Your task to perform on an android device: toggle priority inbox in the gmail app Image 0: 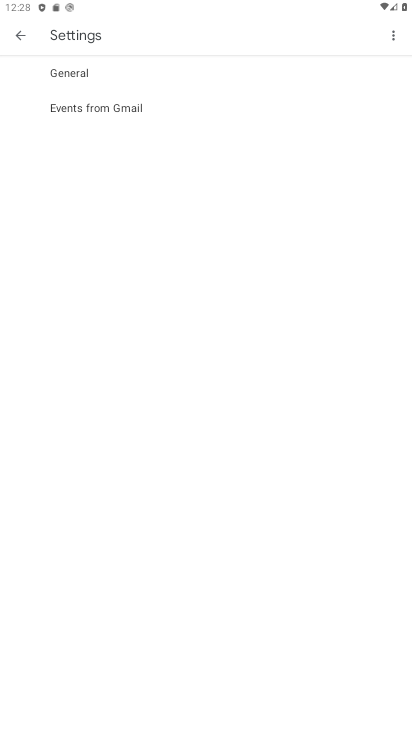
Step 0: press home button
Your task to perform on an android device: toggle priority inbox in the gmail app Image 1: 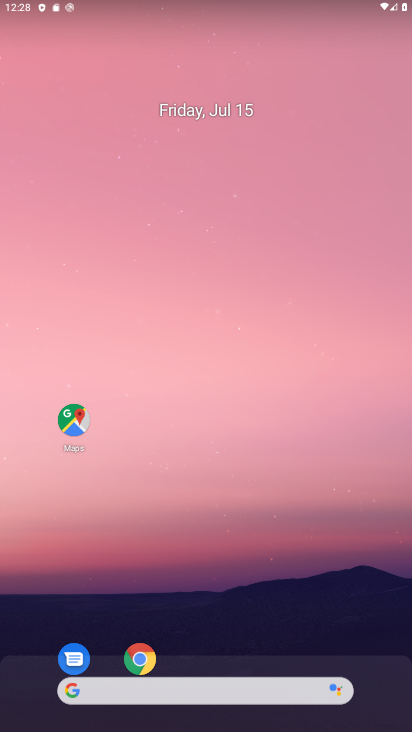
Step 1: drag from (295, 645) to (176, 134)
Your task to perform on an android device: toggle priority inbox in the gmail app Image 2: 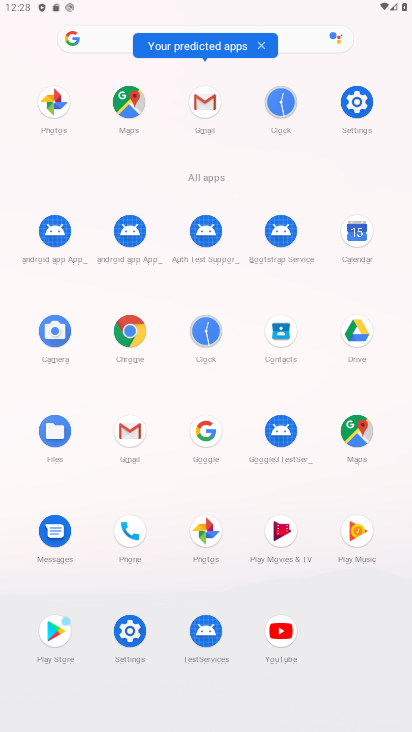
Step 2: click (209, 110)
Your task to perform on an android device: toggle priority inbox in the gmail app Image 3: 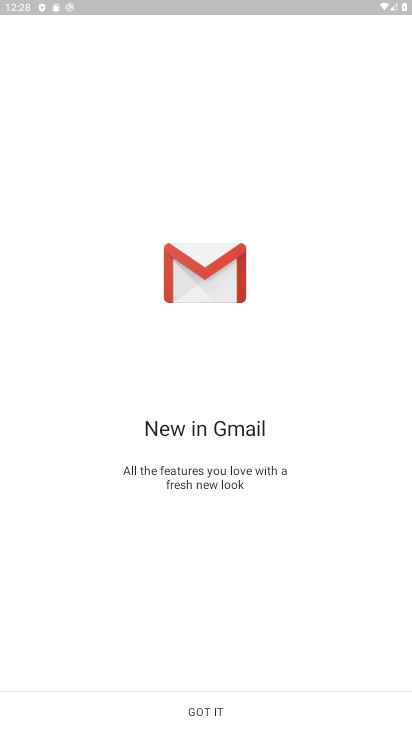
Step 3: click (213, 716)
Your task to perform on an android device: toggle priority inbox in the gmail app Image 4: 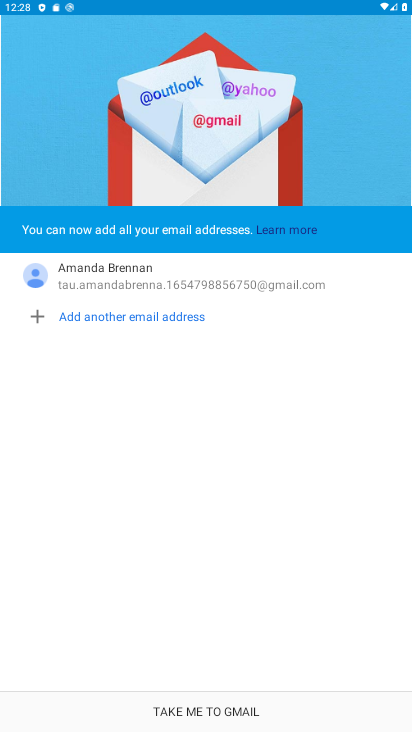
Step 4: click (206, 711)
Your task to perform on an android device: toggle priority inbox in the gmail app Image 5: 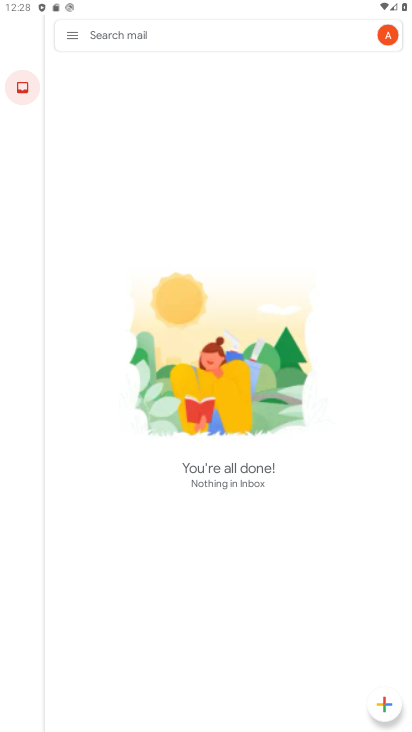
Step 5: click (67, 38)
Your task to perform on an android device: toggle priority inbox in the gmail app Image 6: 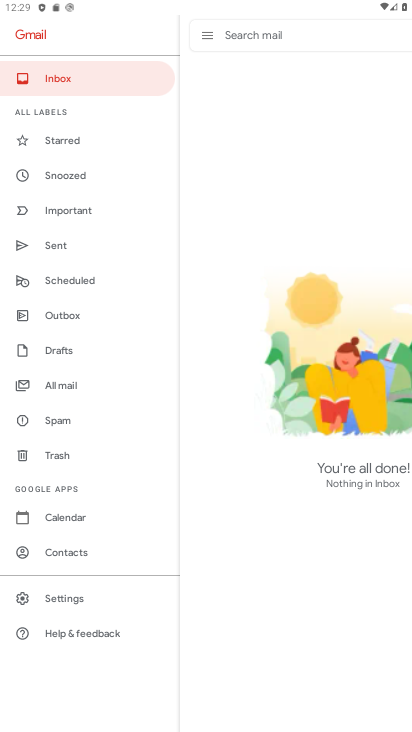
Step 6: click (81, 607)
Your task to perform on an android device: toggle priority inbox in the gmail app Image 7: 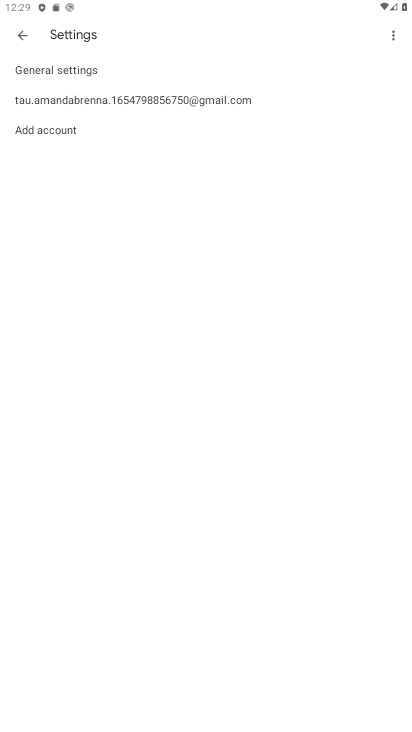
Step 7: click (222, 105)
Your task to perform on an android device: toggle priority inbox in the gmail app Image 8: 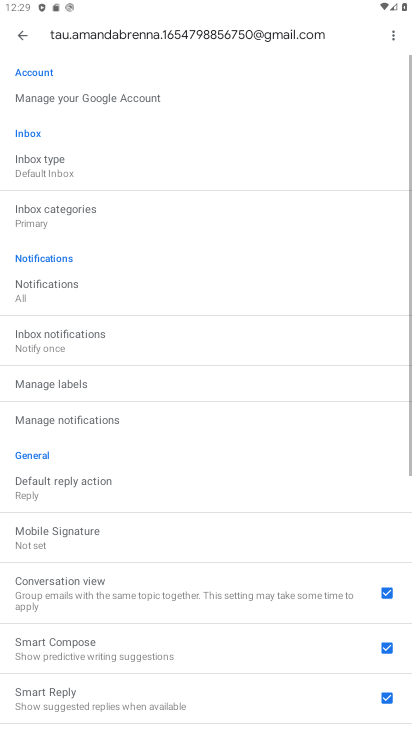
Step 8: click (194, 160)
Your task to perform on an android device: toggle priority inbox in the gmail app Image 9: 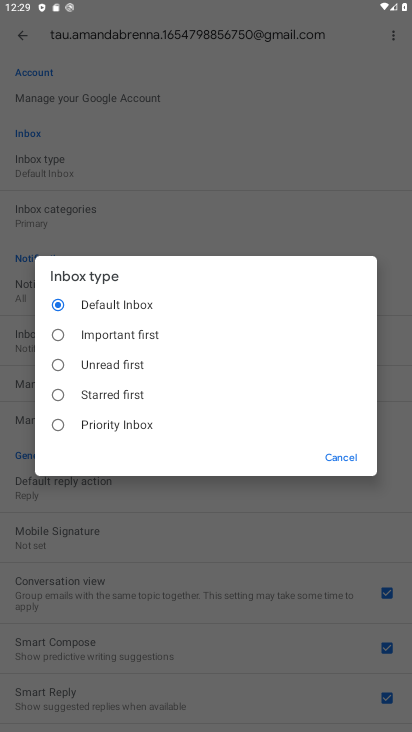
Step 9: click (166, 425)
Your task to perform on an android device: toggle priority inbox in the gmail app Image 10: 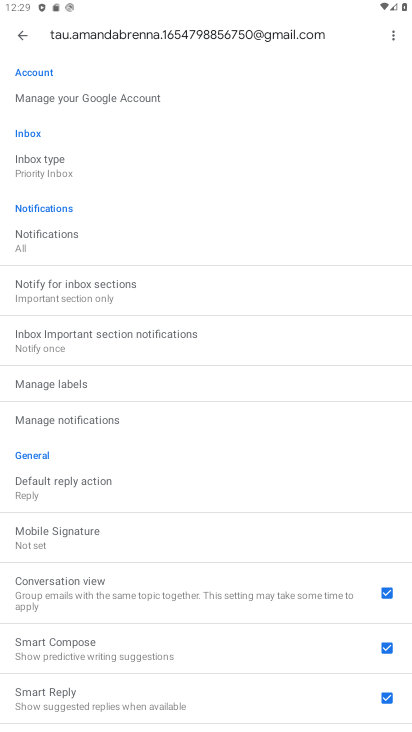
Step 10: task complete